Your task to perform on an android device: open a new tab in the chrome app Image 0: 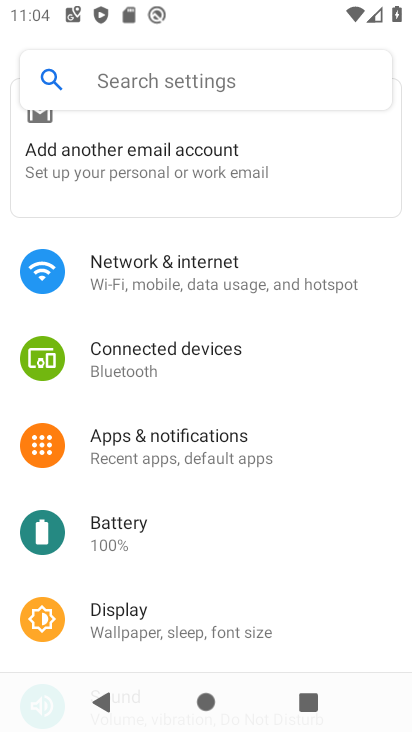
Step 0: press home button
Your task to perform on an android device: open a new tab in the chrome app Image 1: 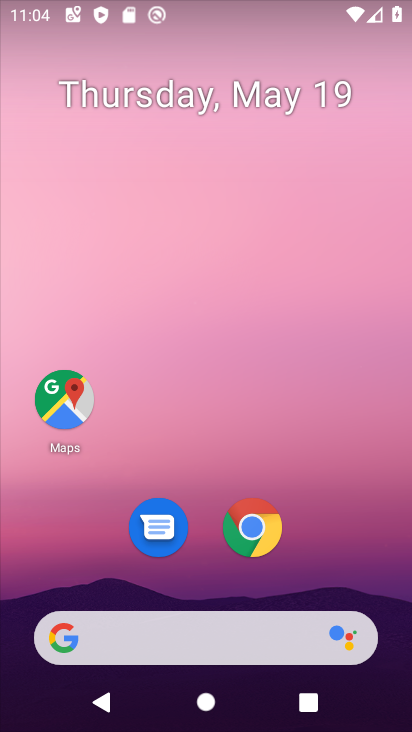
Step 1: click (250, 524)
Your task to perform on an android device: open a new tab in the chrome app Image 2: 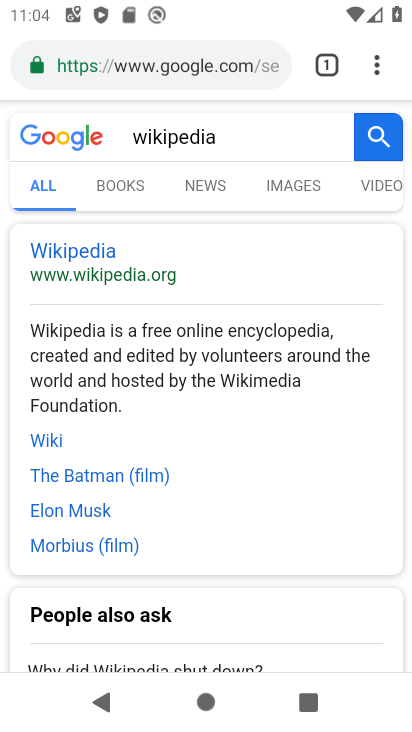
Step 2: click (379, 72)
Your task to perform on an android device: open a new tab in the chrome app Image 3: 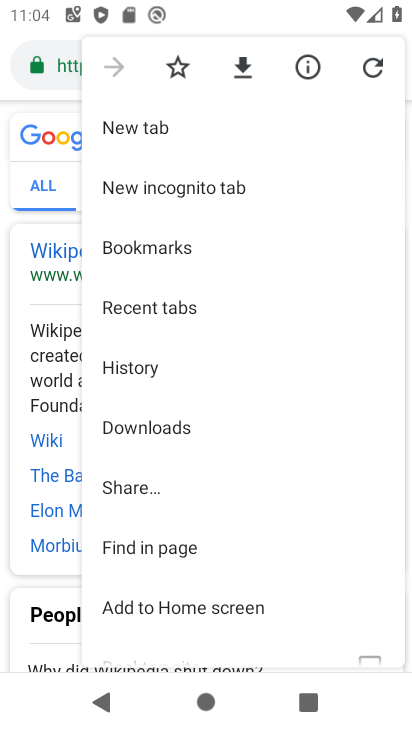
Step 3: drag from (155, 513) to (195, 241)
Your task to perform on an android device: open a new tab in the chrome app Image 4: 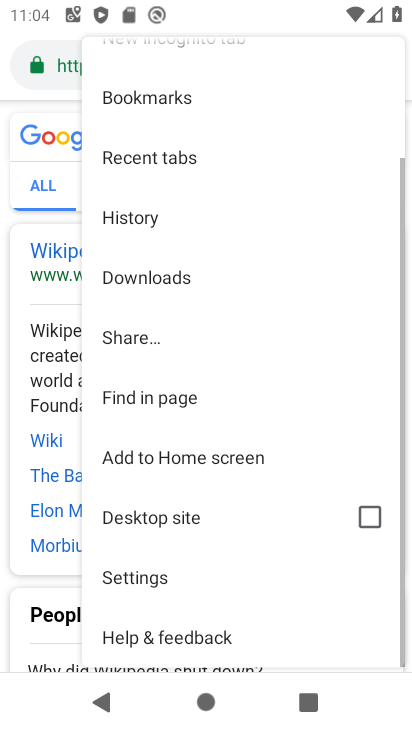
Step 4: drag from (207, 127) to (195, 628)
Your task to perform on an android device: open a new tab in the chrome app Image 5: 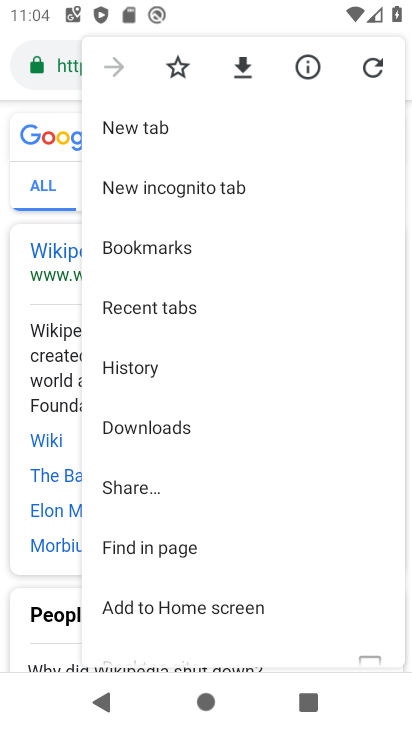
Step 5: click (136, 127)
Your task to perform on an android device: open a new tab in the chrome app Image 6: 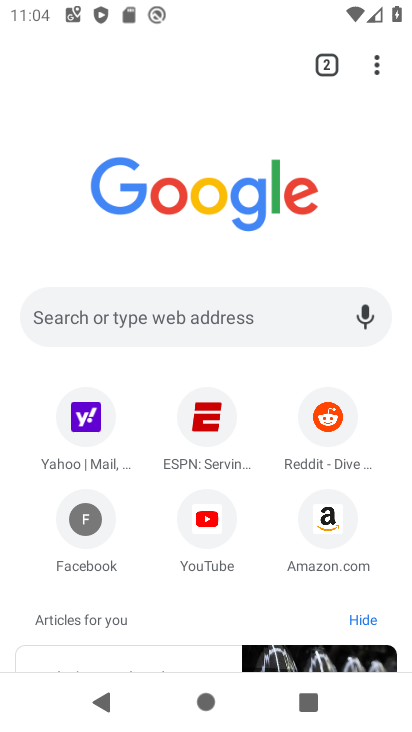
Step 6: task complete